Your task to perform on an android device: turn off wifi Image 0: 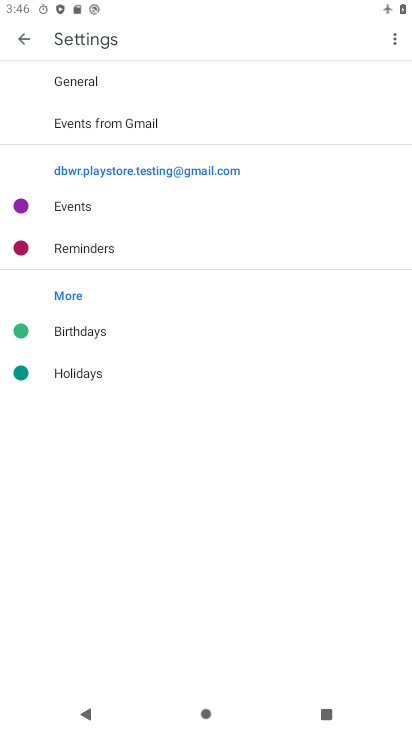
Step 0: press home button
Your task to perform on an android device: turn off wifi Image 1: 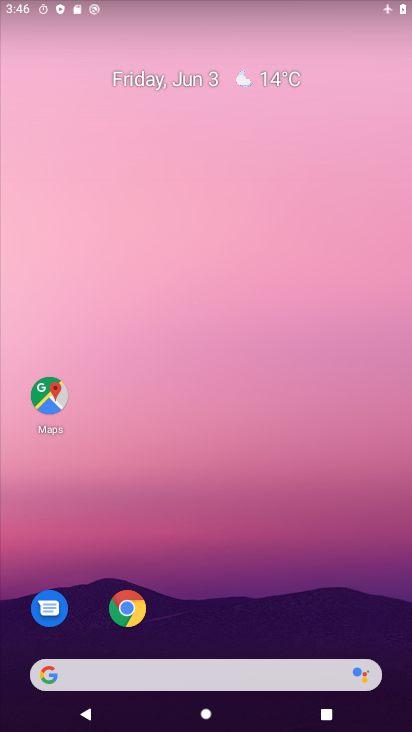
Step 1: drag from (217, 658) to (215, 236)
Your task to perform on an android device: turn off wifi Image 2: 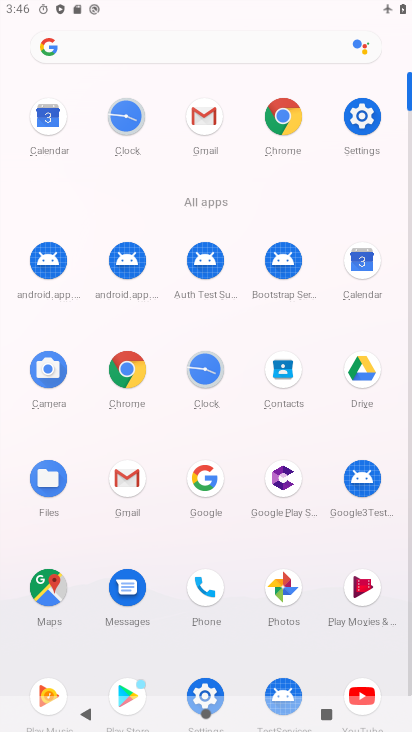
Step 2: click (366, 118)
Your task to perform on an android device: turn off wifi Image 3: 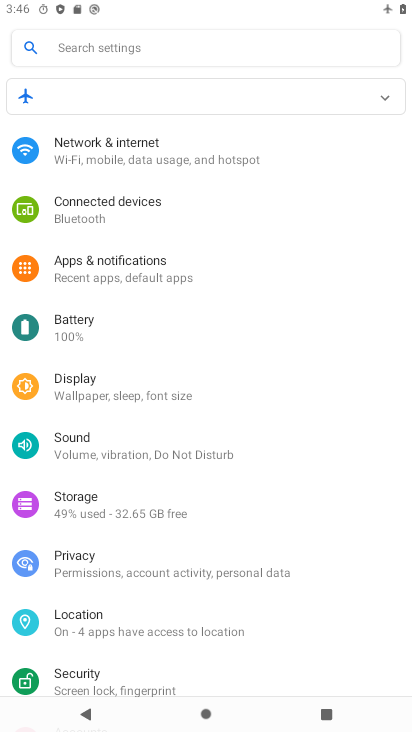
Step 3: click (102, 157)
Your task to perform on an android device: turn off wifi Image 4: 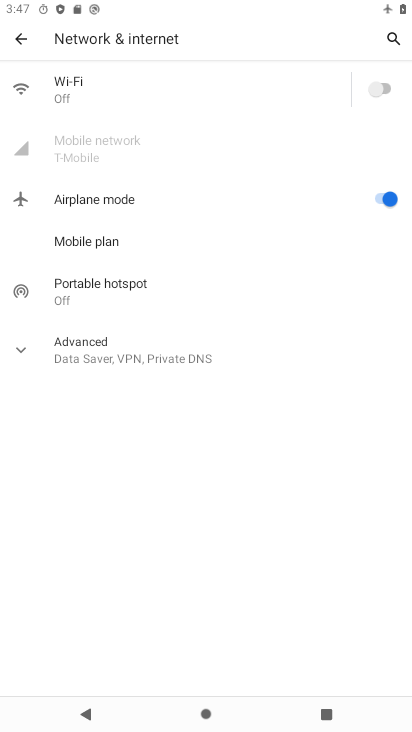
Step 4: click (387, 82)
Your task to perform on an android device: turn off wifi Image 5: 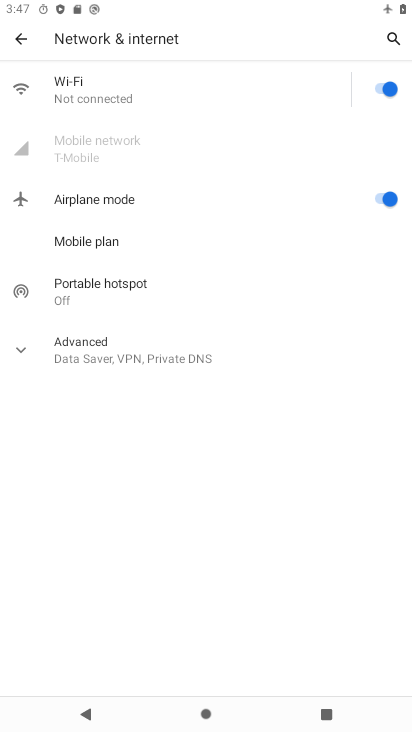
Step 5: click (379, 83)
Your task to perform on an android device: turn off wifi Image 6: 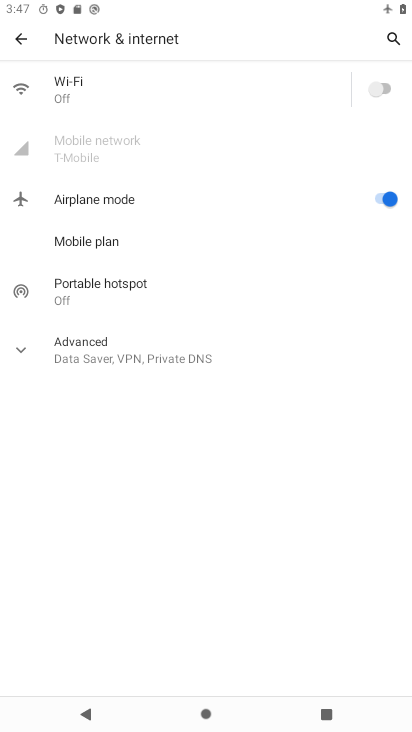
Step 6: task complete